Your task to perform on an android device: Is it going to rain tomorrow? Image 0: 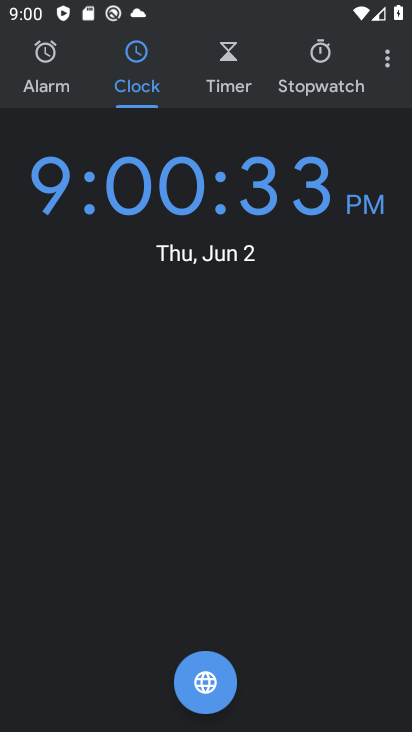
Step 0: press home button
Your task to perform on an android device: Is it going to rain tomorrow? Image 1: 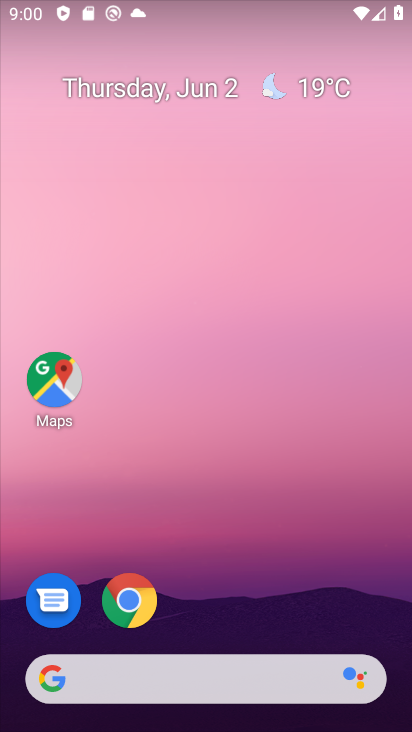
Step 1: drag from (184, 612) to (163, 266)
Your task to perform on an android device: Is it going to rain tomorrow? Image 2: 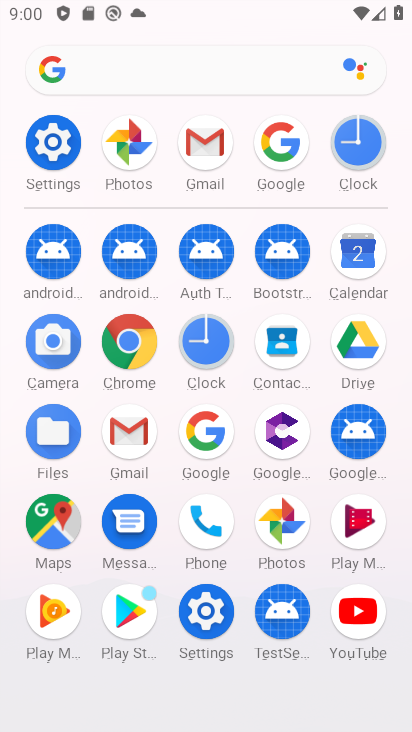
Step 2: click (259, 147)
Your task to perform on an android device: Is it going to rain tomorrow? Image 3: 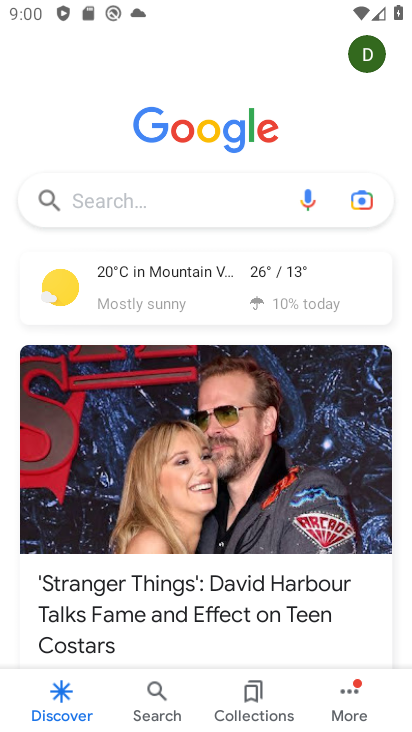
Step 3: click (147, 283)
Your task to perform on an android device: Is it going to rain tomorrow? Image 4: 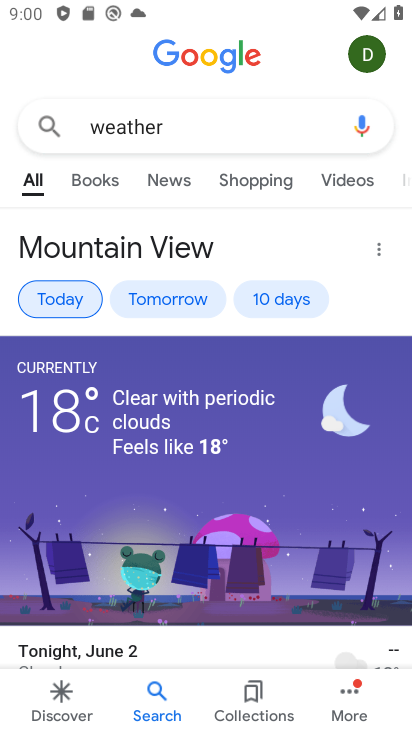
Step 4: click (147, 293)
Your task to perform on an android device: Is it going to rain tomorrow? Image 5: 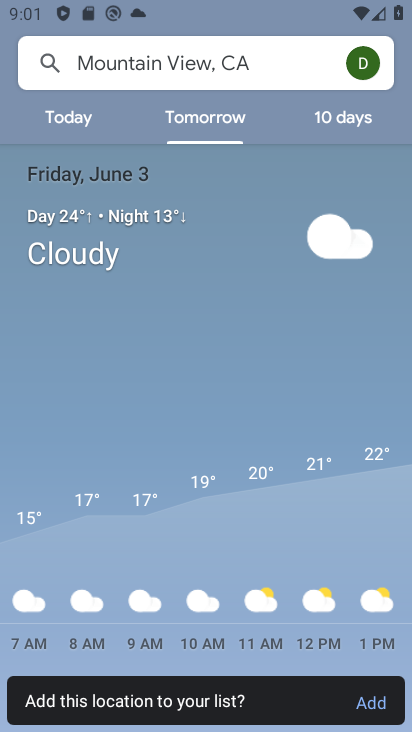
Step 5: task complete